Your task to perform on an android device: Open internet settings Image 0: 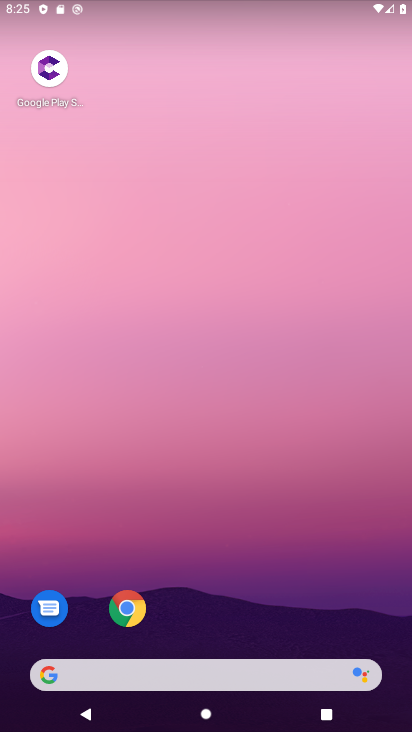
Step 0: drag from (184, 651) to (250, 208)
Your task to perform on an android device: Open internet settings Image 1: 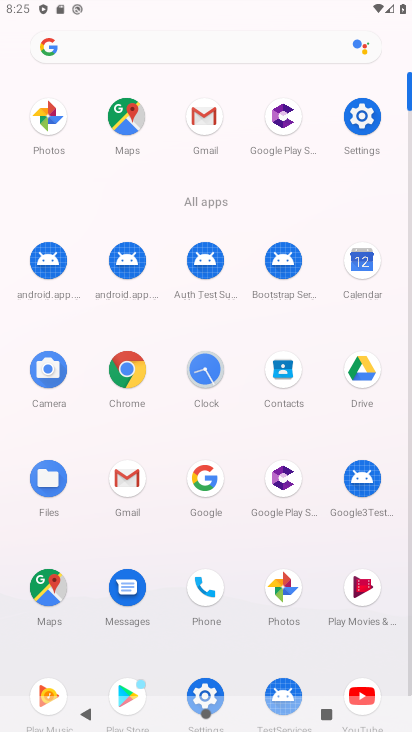
Step 1: drag from (170, 667) to (211, 393)
Your task to perform on an android device: Open internet settings Image 2: 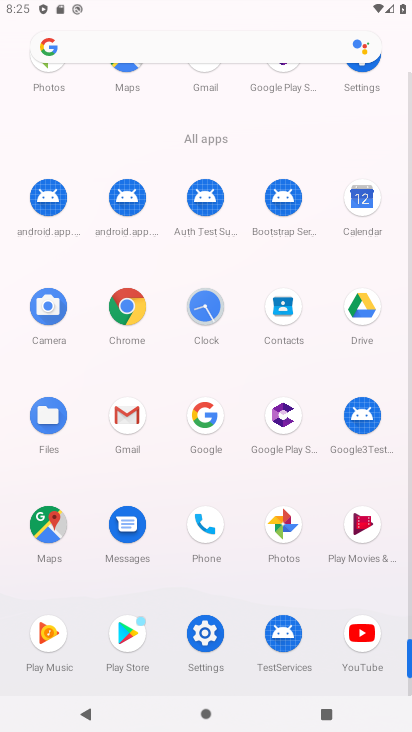
Step 2: click (205, 623)
Your task to perform on an android device: Open internet settings Image 3: 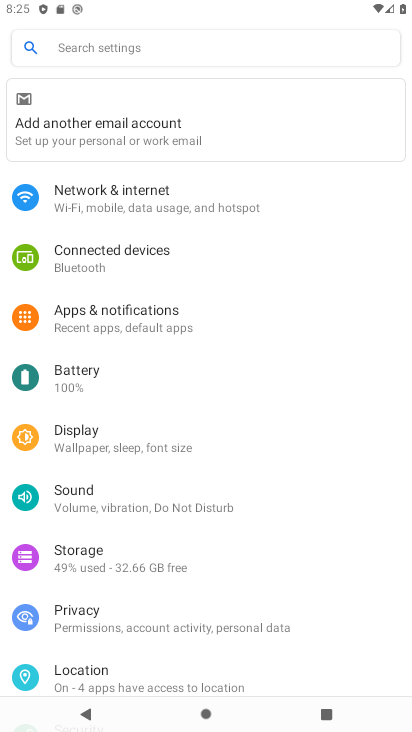
Step 3: click (211, 191)
Your task to perform on an android device: Open internet settings Image 4: 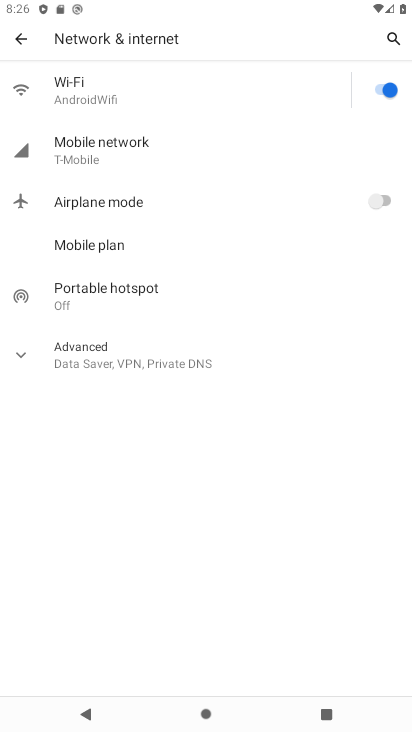
Step 4: click (208, 144)
Your task to perform on an android device: Open internet settings Image 5: 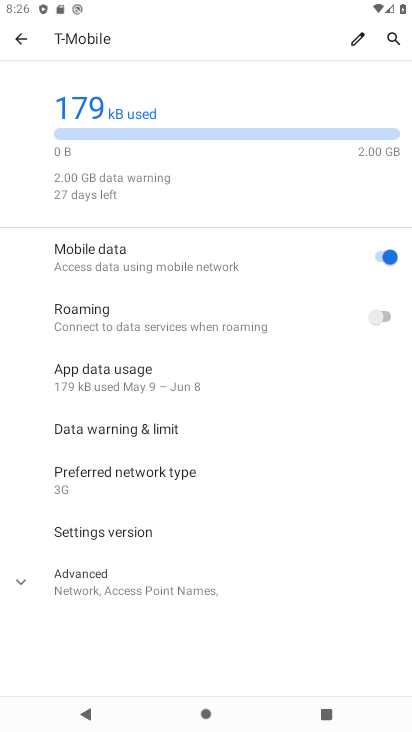
Step 5: task complete